Your task to perform on an android device: add a contact in the contacts app Image 0: 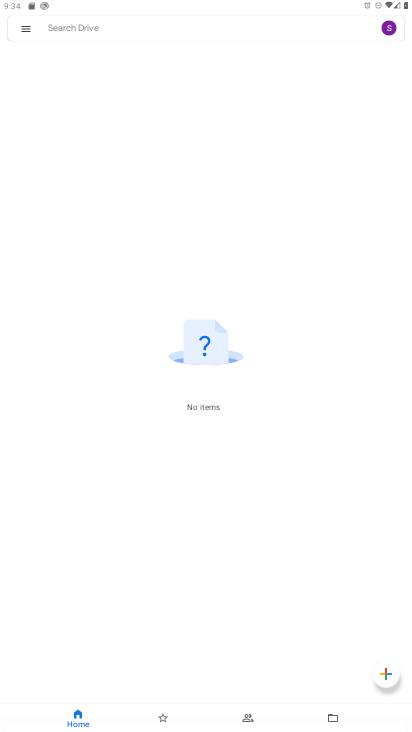
Step 0: press home button
Your task to perform on an android device: add a contact in the contacts app Image 1: 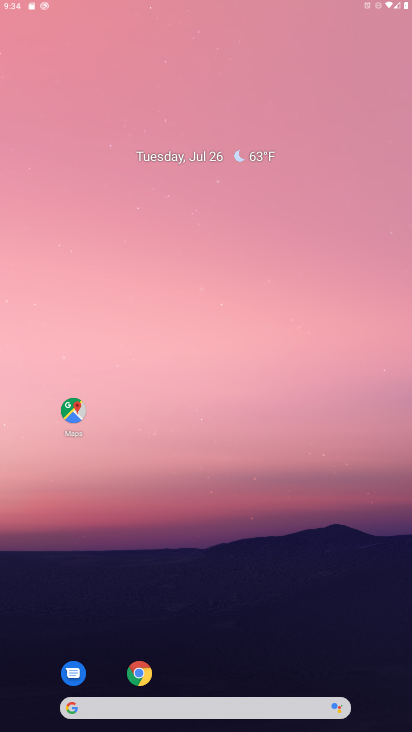
Step 1: drag from (392, 658) to (192, 68)
Your task to perform on an android device: add a contact in the contacts app Image 2: 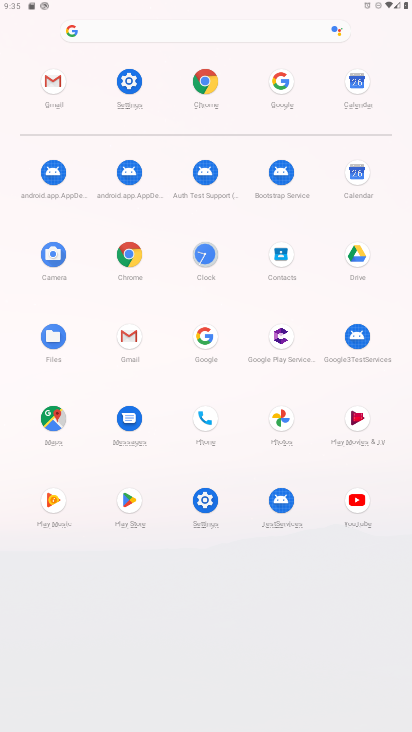
Step 2: click (281, 255)
Your task to perform on an android device: add a contact in the contacts app Image 3: 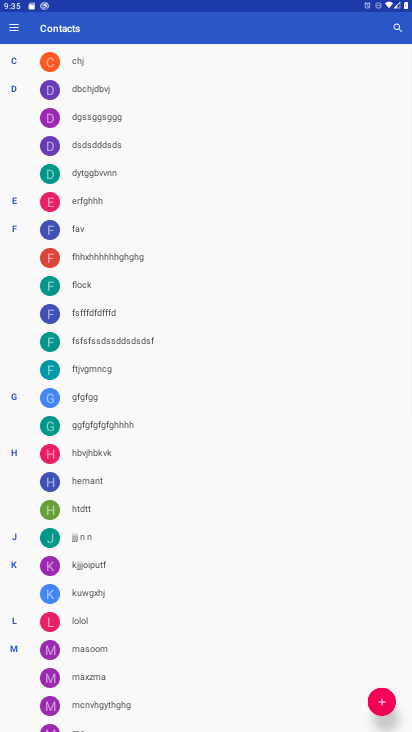
Step 3: click (381, 704)
Your task to perform on an android device: add a contact in the contacts app Image 4: 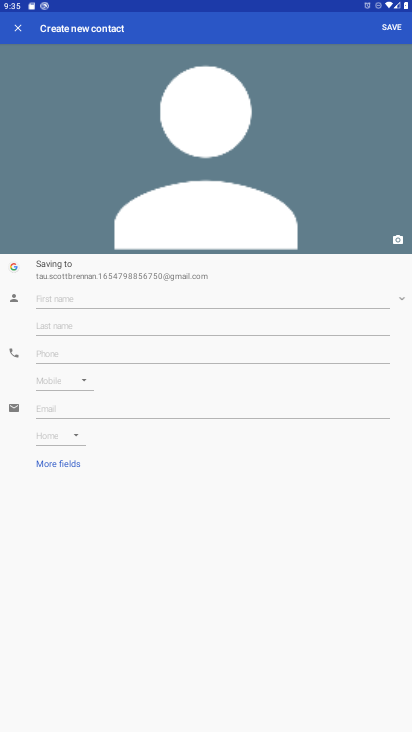
Step 4: click (92, 303)
Your task to perform on an android device: add a contact in the contacts app Image 5: 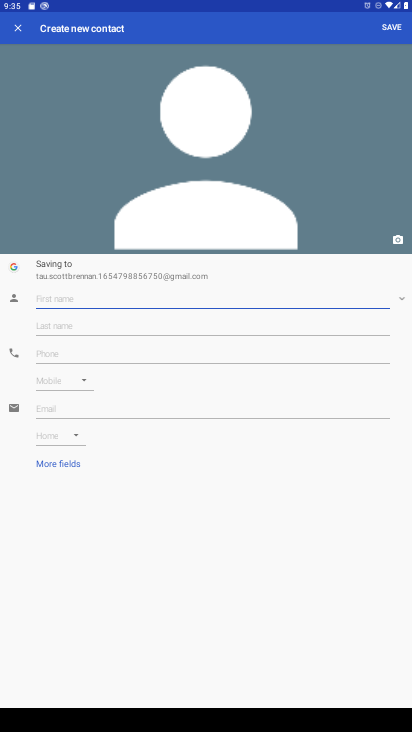
Step 5: type "arsh"
Your task to perform on an android device: add a contact in the contacts app Image 6: 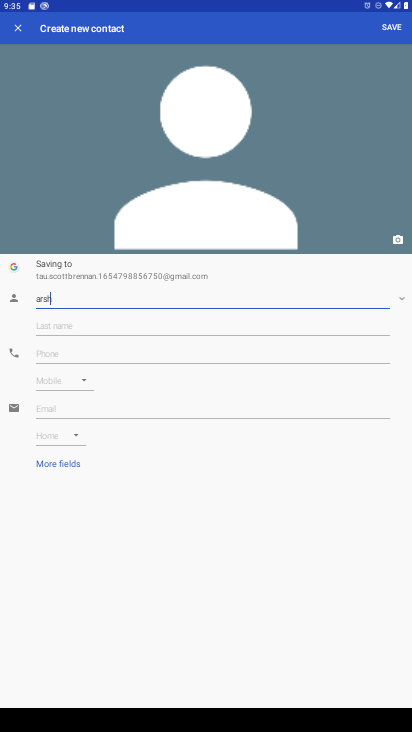
Step 6: click (386, 30)
Your task to perform on an android device: add a contact in the contacts app Image 7: 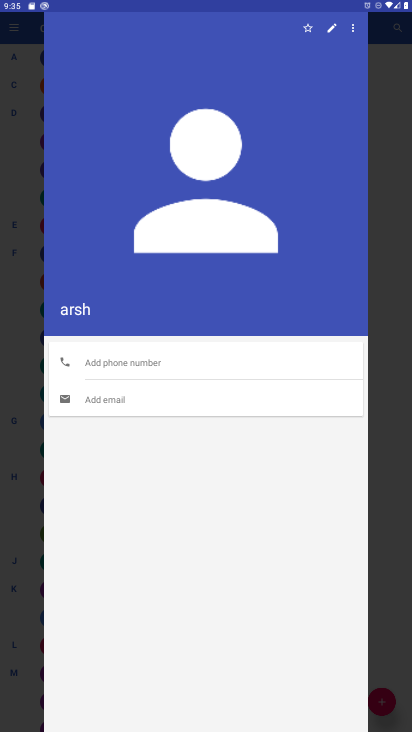
Step 7: task complete